Your task to perform on an android device: Check the weather Image 0: 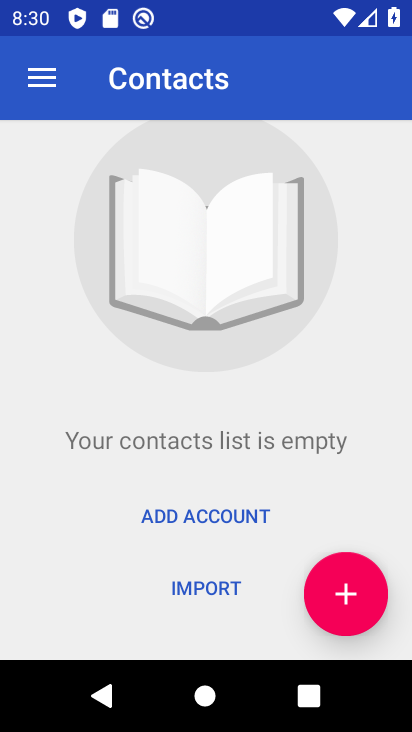
Step 0: press back button
Your task to perform on an android device: Check the weather Image 1: 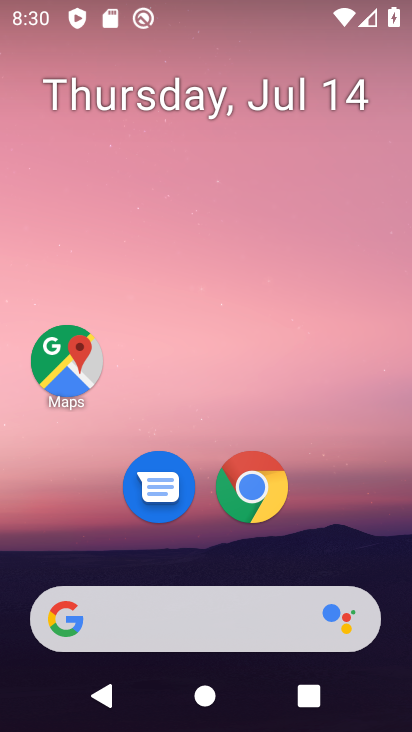
Step 1: drag from (240, 616) to (232, 22)
Your task to perform on an android device: Check the weather Image 2: 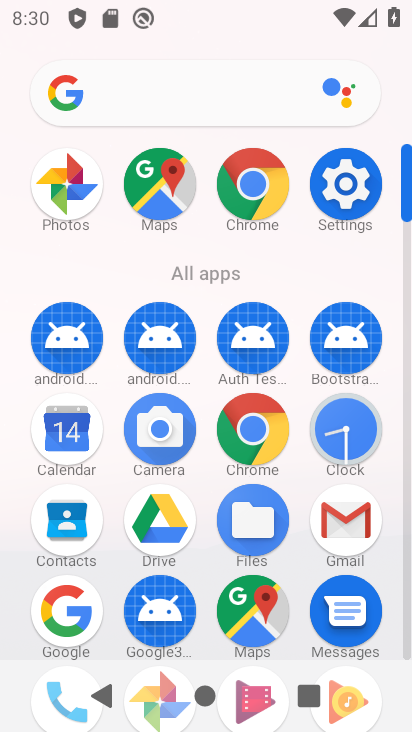
Step 2: click (178, 94)
Your task to perform on an android device: Check the weather Image 3: 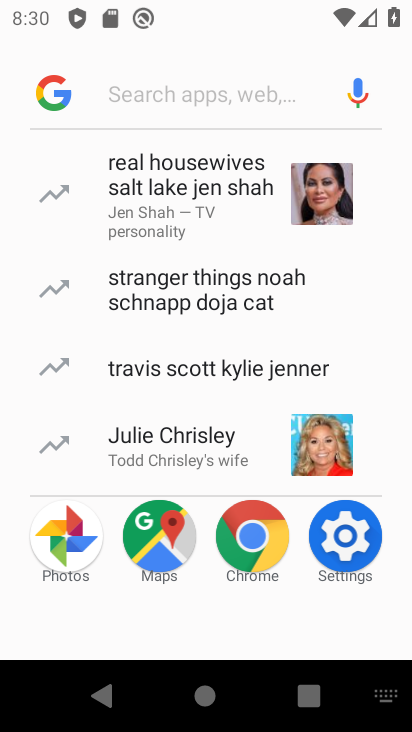
Step 3: type "weather"
Your task to perform on an android device: Check the weather Image 4: 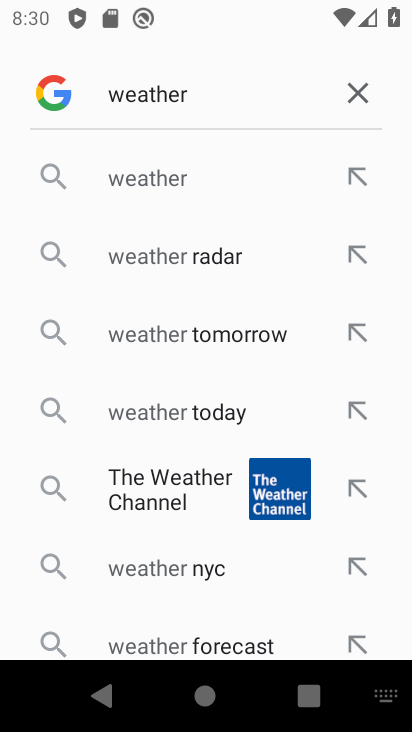
Step 4: click (200, 191)
Your task to perform on an android device: Check the weather Image 5: 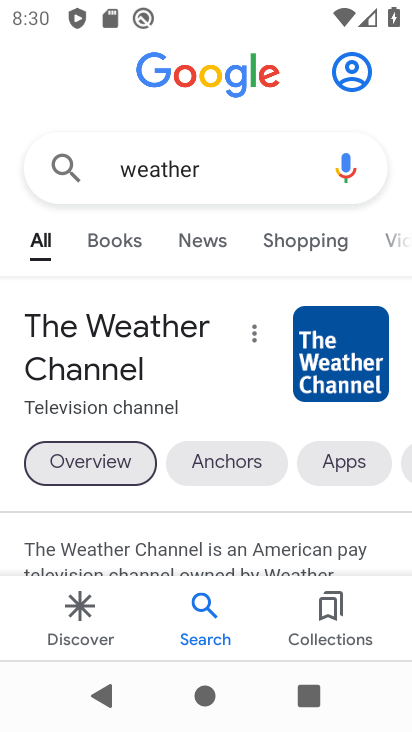
Step 5: task complete